Your task to perform on an android device: delete a single message in the gmail app Image 0: 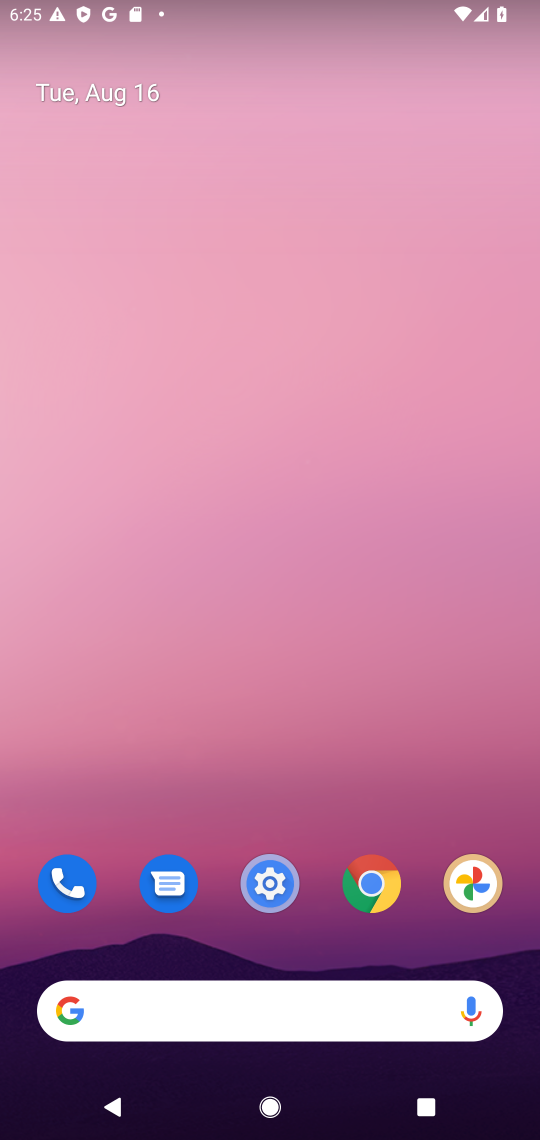
Step 0: drag from (247, 1019) to (536, 565)
Your task to perform on an android device: delete a single message in the gmail app Image 1: 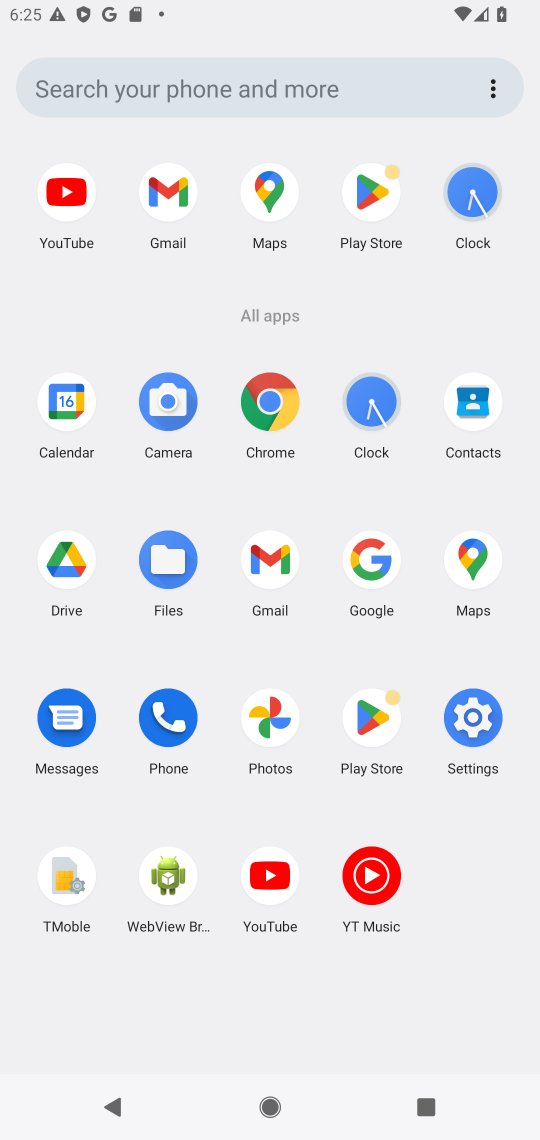
Step 1: click (274, 560)
Your task to perform on an android device: delete a single message in the gmail app Image 2: 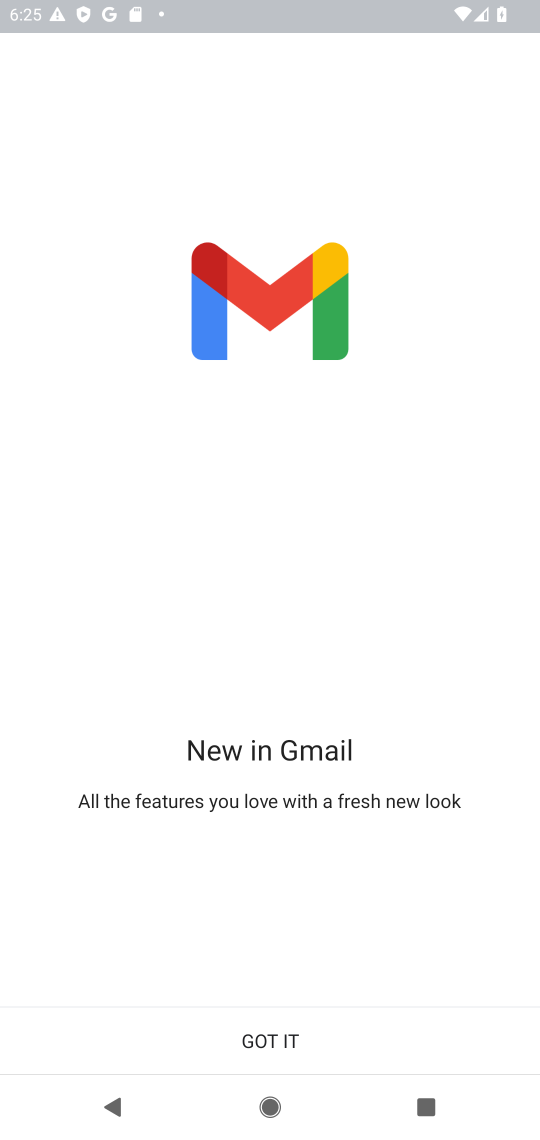
Step 2: click (274, 1045)
Your task to perform on an android device: delete a single message in the gmail app Image 3: 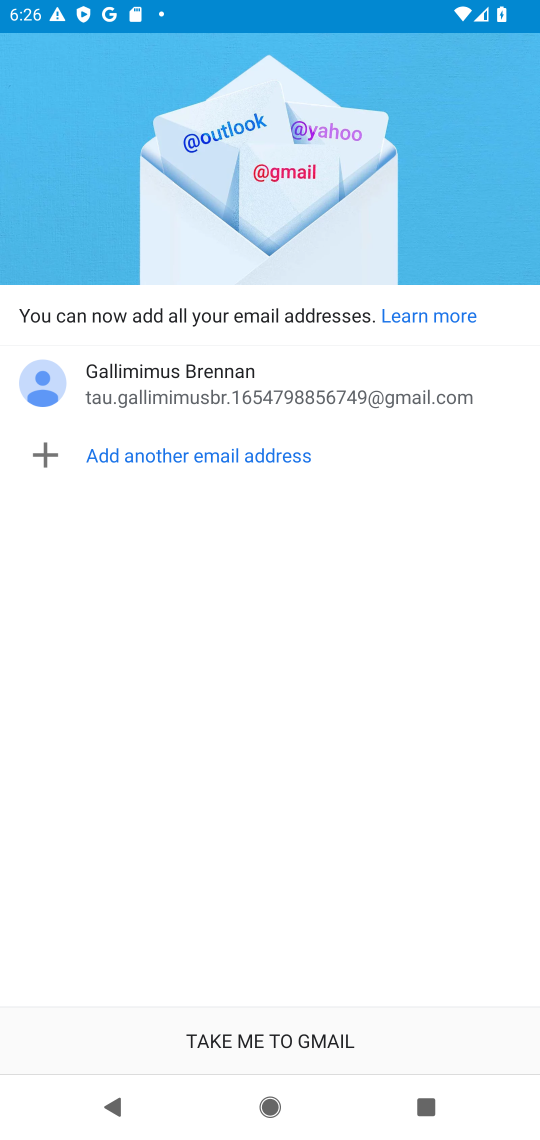
Step 3: click (274, 1045)
Your task to perform on an android device: delete a single message in the gmail app Image 4: 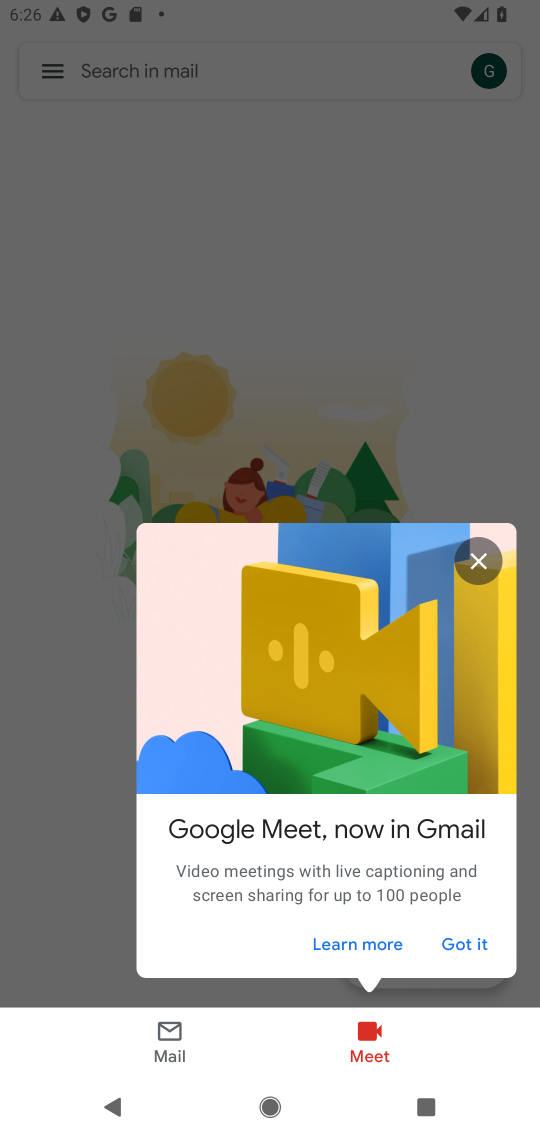
Step 4: click (472, 945)
Your task to perform on an android device: delete a single message in the gmail app Image 5: 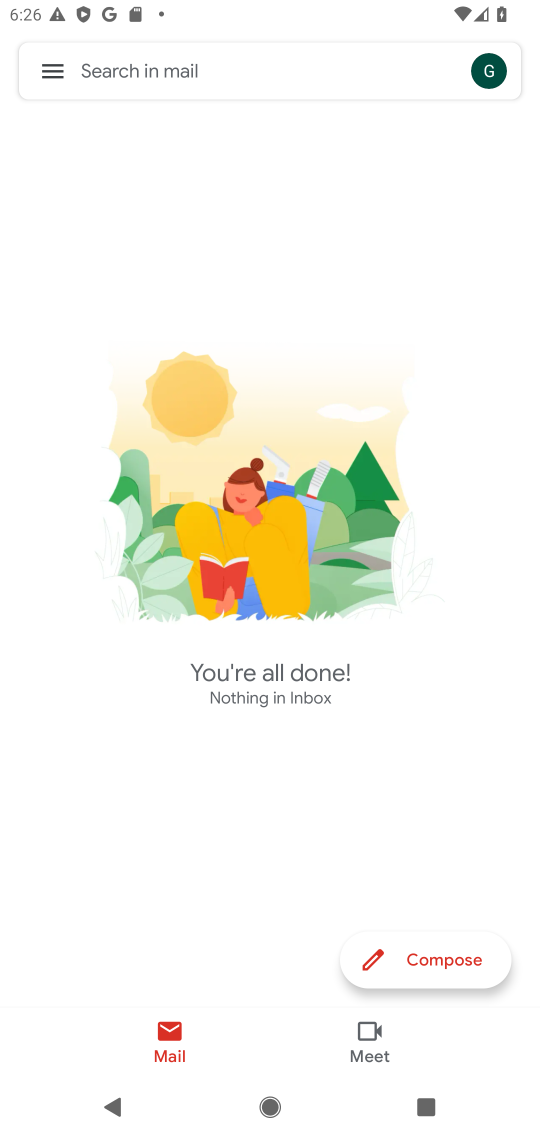
Step 5: click (50, 74)
Your task to perform on an android device: delete a single message in the gmail app Image 6: 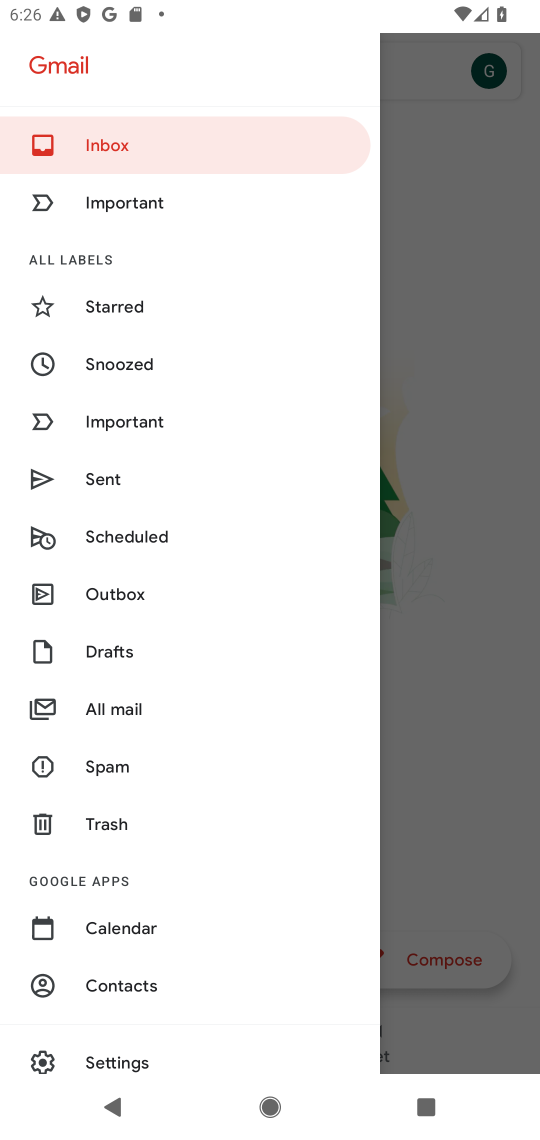
Step 6: drag from (112, 945) to (141, 769)
Your task to perform on an android device: delete a single message in the gmail app Image 7: 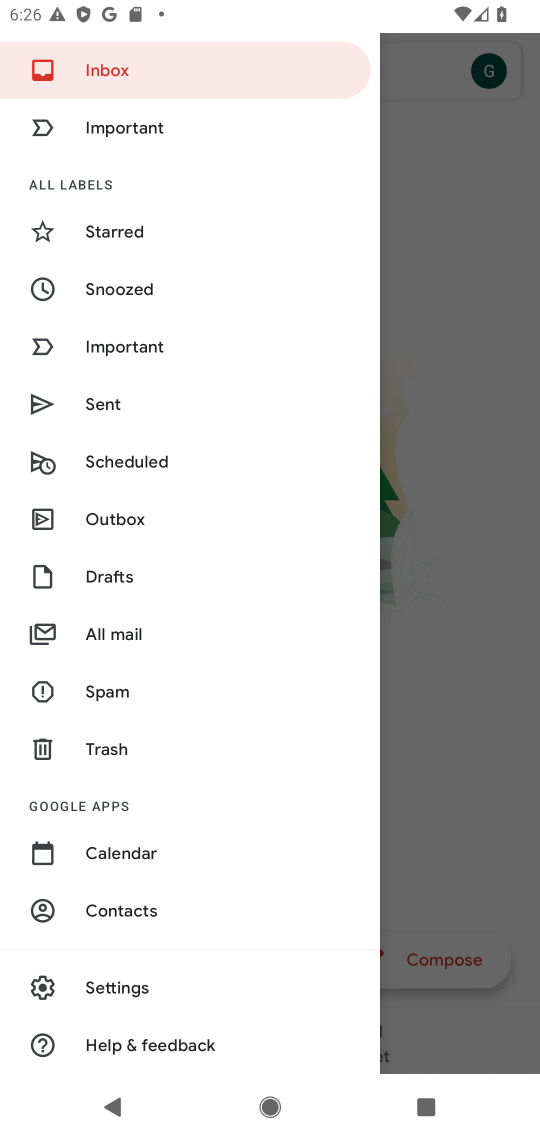
Step 7: click (127, 641)
Your task to perform on an android device: delete a single message in the gmail app Image 8: 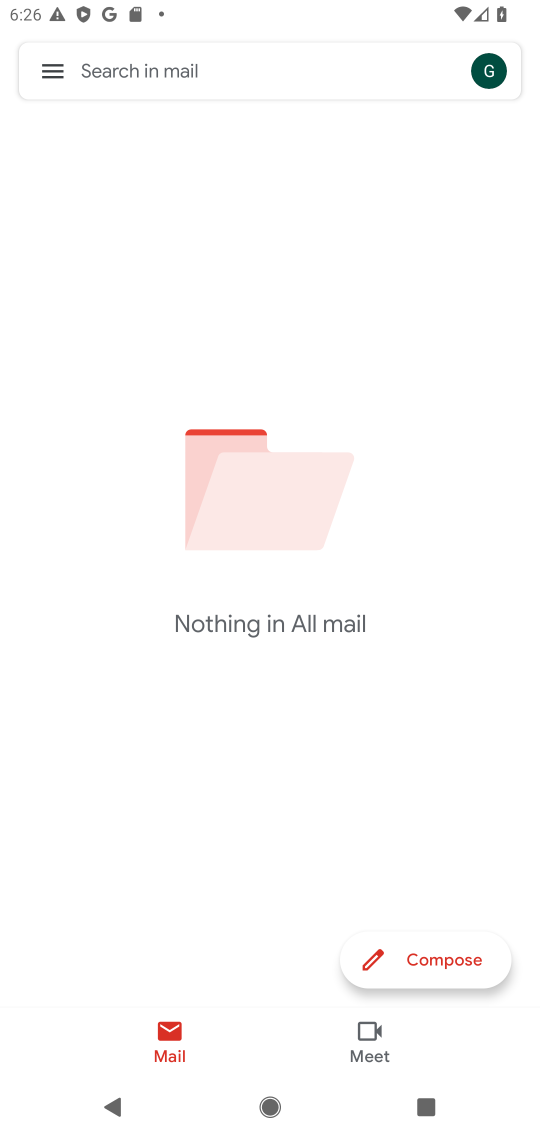
Step 8: task complete